Your task to perform on an android device: clear all cookies in the chrome app Image 0: 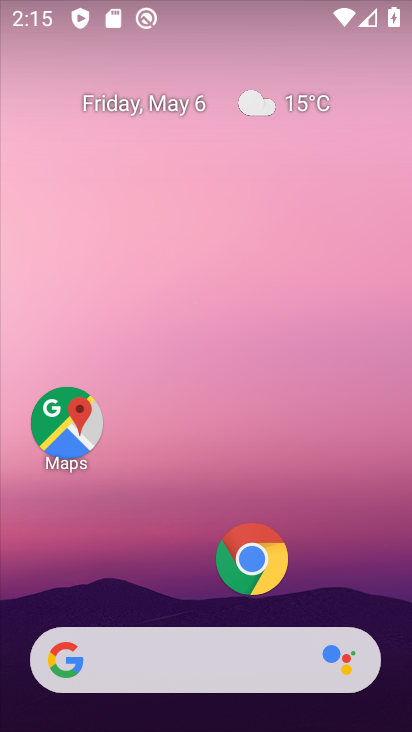
Step 0: drag from (197, 592) to (173, 73)
Your task to perform on an android device: clear all cookies in the chrome app Image 1: 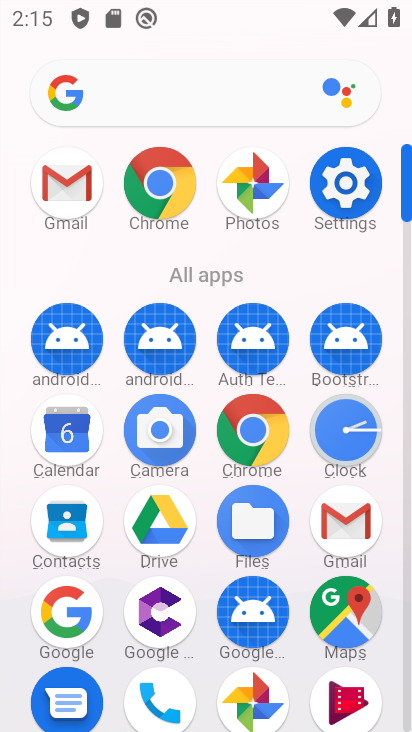
Step 1: click (253, 428)
Your task to perform on an android device: clear all cookies in the chrome app Image 2: 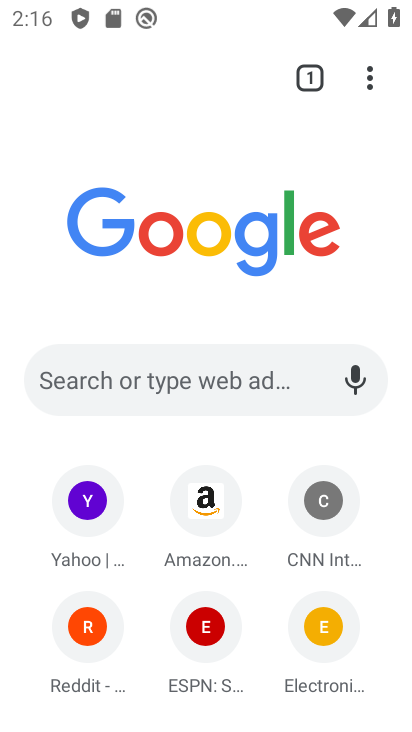
Step 2: click (369, 65)
Your task to perform on an android device: clear all cookies in the chrome app Image 3: 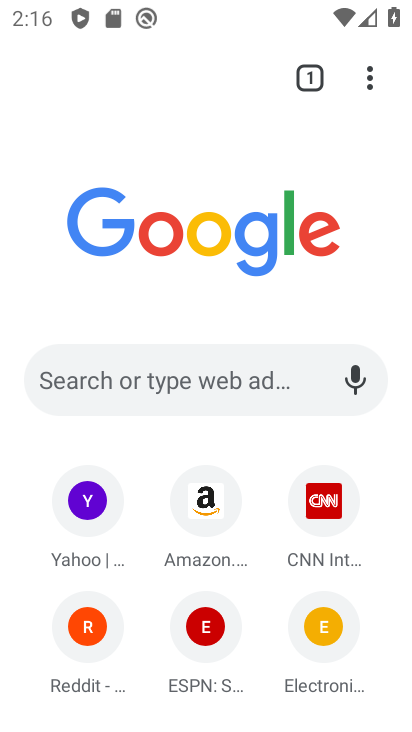
Step 3: click (371, 72)
Your task to perform on an android device: clear all cookies in the chrome app Image 4: 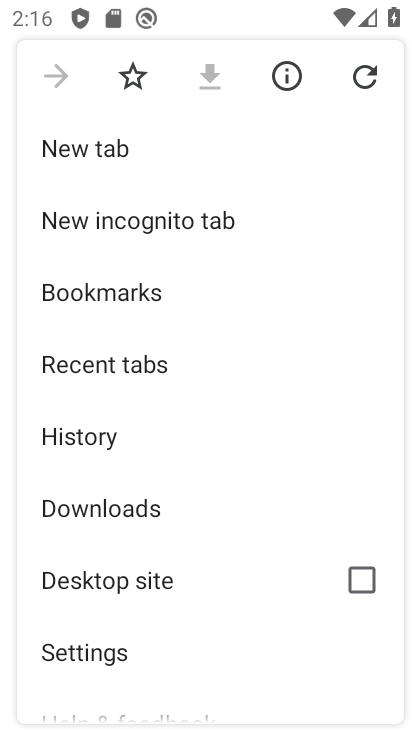
Step 4: click (136, 435)
Your task to perform on an android device: clear all cookies in the chrome app Image 5: 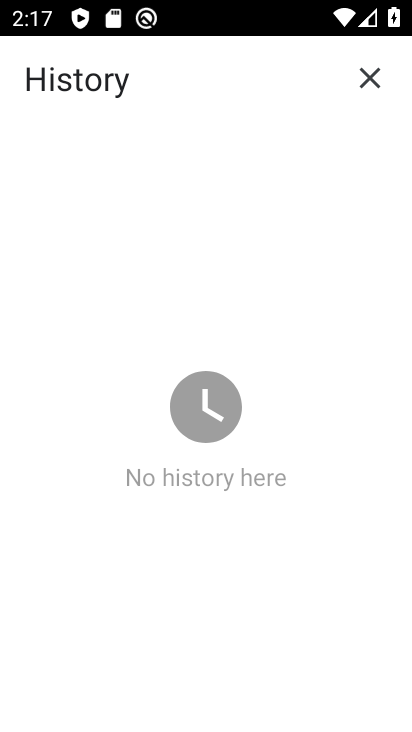
Step 5: task complete